Your task to perform on an android device: Open calendar and show me the second week of next month Image 0: 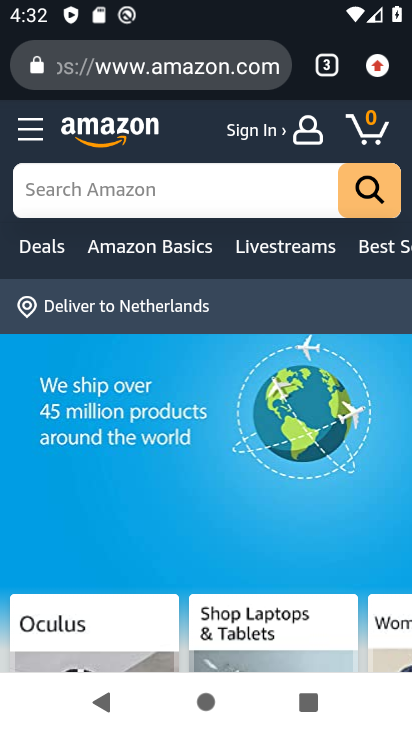
Step 0: press home button
Your task to perform on an android device: Open calendar and show me the second week of next month Image 1: 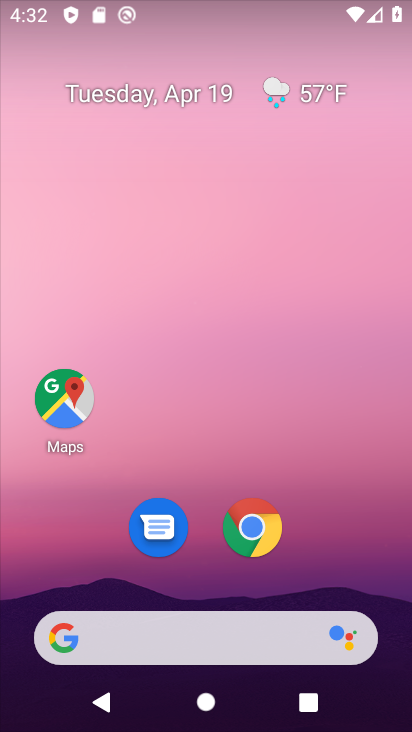
Step 1: drag from (396, 604) to (332, 135)
Your task to perform on an android device: Open calendar and show me the second week of next month Image 2: 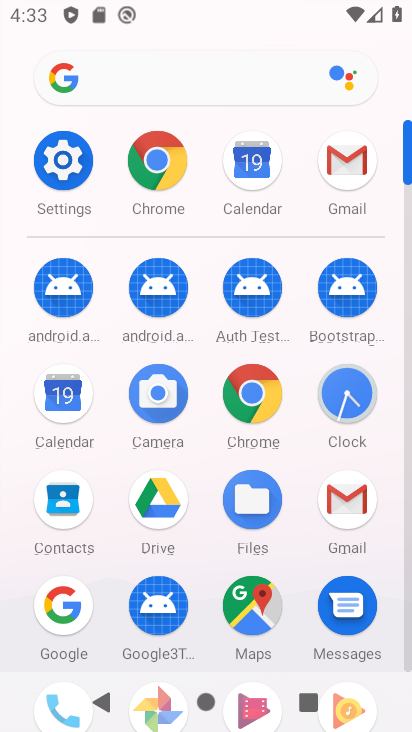
Step 2: click (60, 390)
Your task to perform on an android device: Open calendar and show me the second week of next month Image 3: 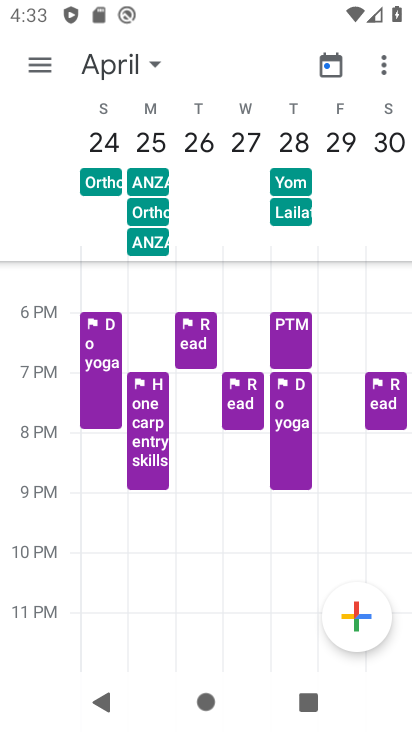
Step 3: task complete